Your task to perform on an android device: change notifications settings Image 0: 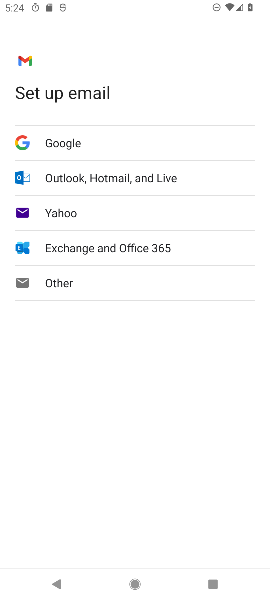
Step 0: press home button
Your task to perform on an android device: change notifications settings Image 1: 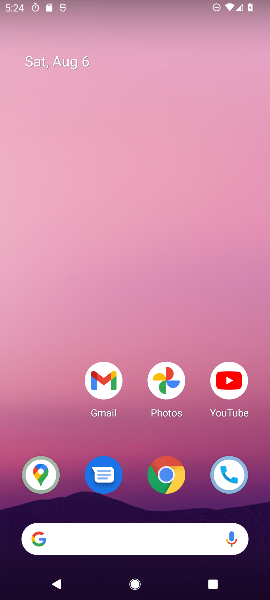
Step 1: drag from (35, 574) to (130, 176)
Your task to perform on an android device: change notifications settings Image 2: 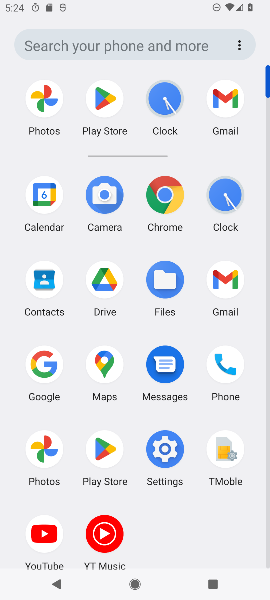
Step 2: click (168, 448)
Your task to perform on an android device: change notifications settings Image 3: 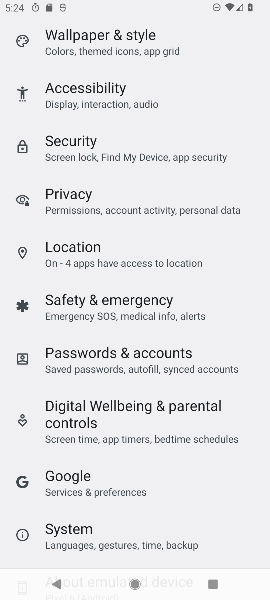
Step 3: drag from (238, 59) to (197, 299)
Your task to perform on an android device: change notifications settings Image 4: 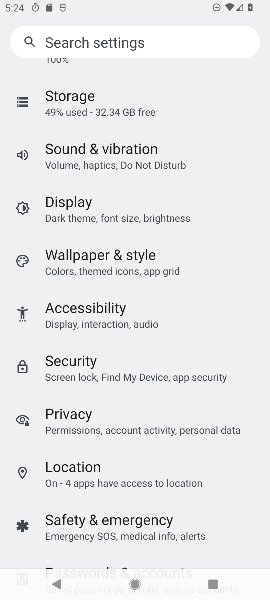
Step 4: drag from (225, 72) to (188, 351)
Your task to perform on an android device: change notifications settings Image 5: 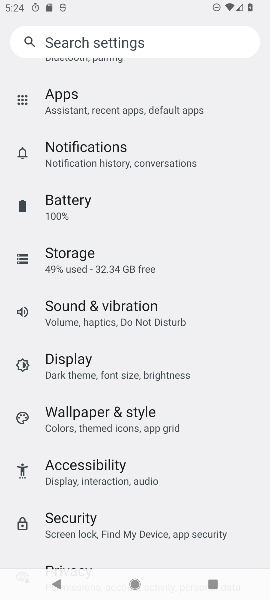
Step 5: click (71, 161)
Your task to perform on an android device: change notifications settings Image 6: 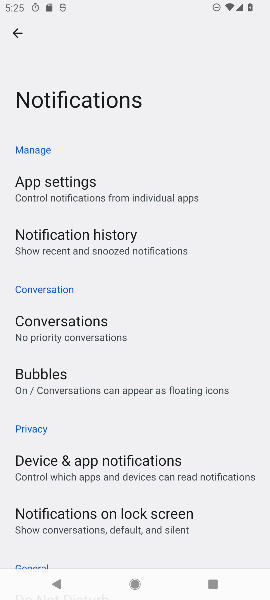
Step 6: click (77, 239)
Your task to perform on an android device: change notifications settings Image 7: 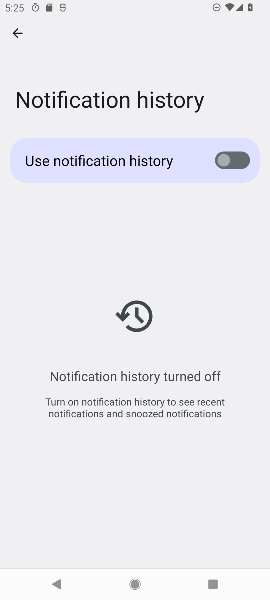
Step 7: click (221, 155)
Your task to perform on an android device: change notifications settings Image 8: 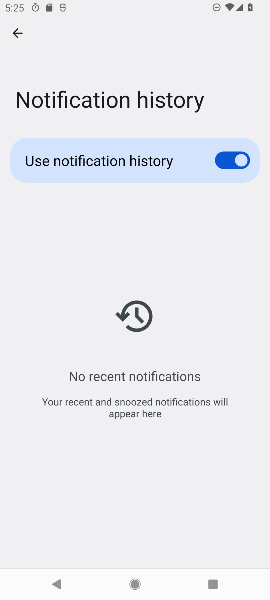
Step 8: task complete